Your task to perform on an android device: toggle notification dots Image 0: 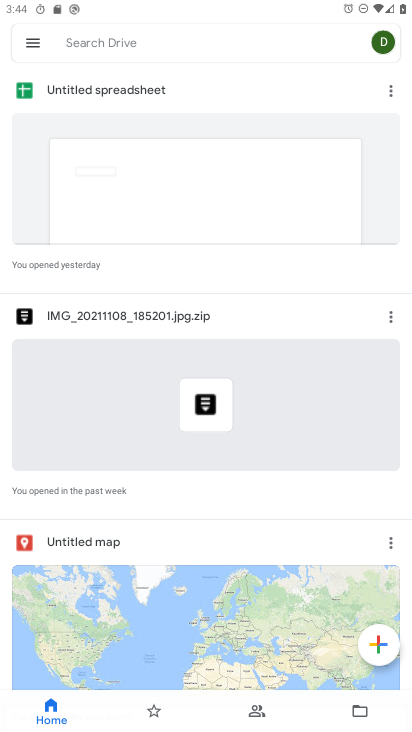
Step 0: press home button
Your task to perform on an android device: toggle notification dots Image 1: 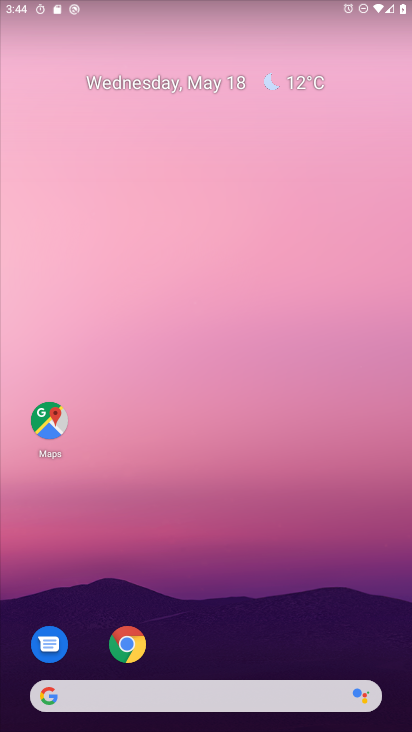
Step 1: drag from (390, 687) to (323, 144)
Your task to perform on an android device: toggle notification dots Image 2: 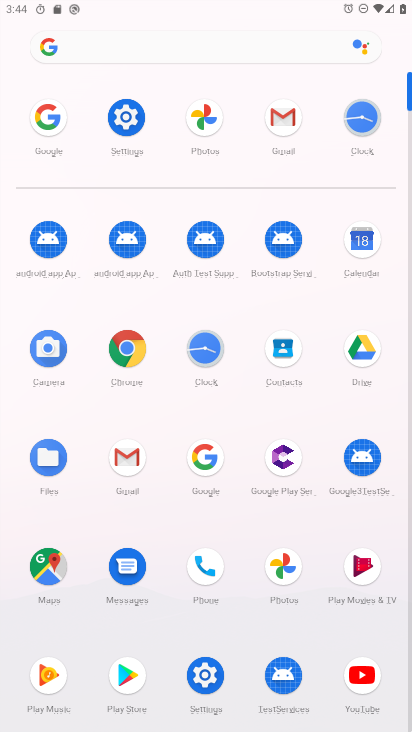
Step 2: click (113, 120)
Your task to perform on an android device: toggle notification dots Image 3: 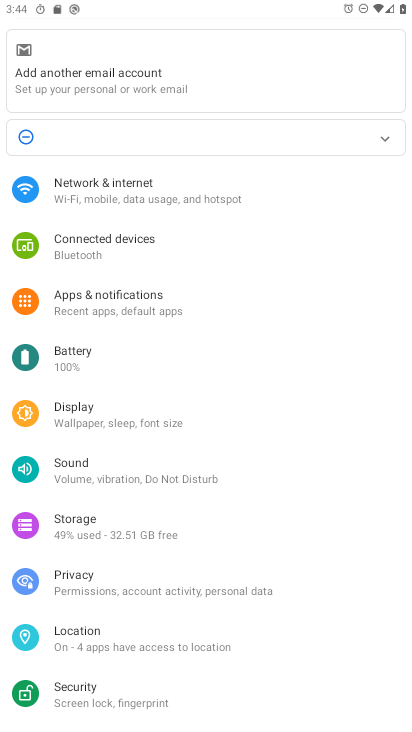
Step 3: click (104, 293)
Your task to perform on an android device: toggle notification dots Image 4: 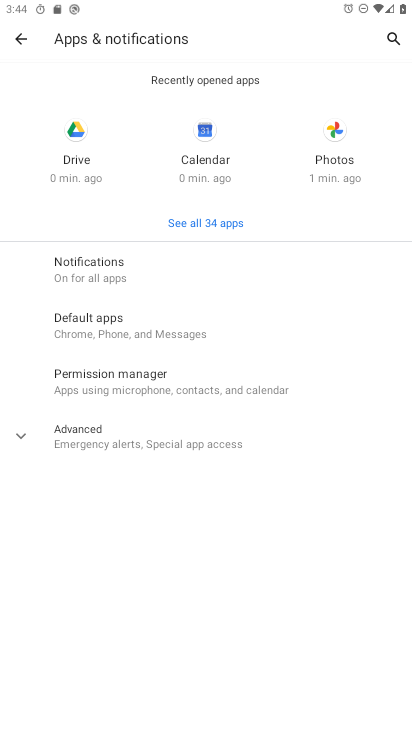
Step 4: click (85, 267)
Your task to perform on an android device: toggle notification dots Image 5: 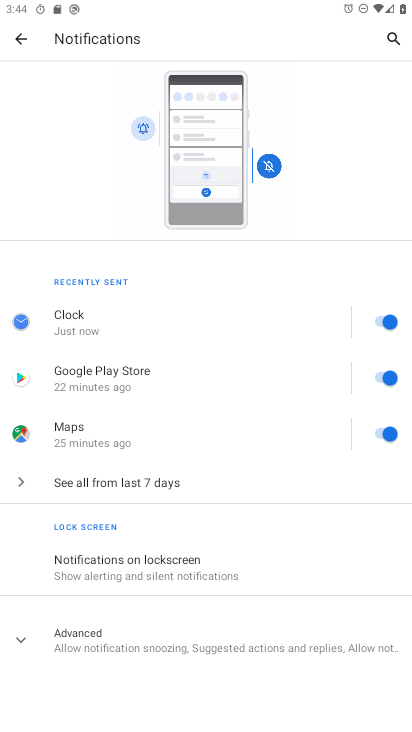
Step 5: drag from (271, 595) to (247, 304)
Your task to perform on an android device: toggle notification dots Image 6: 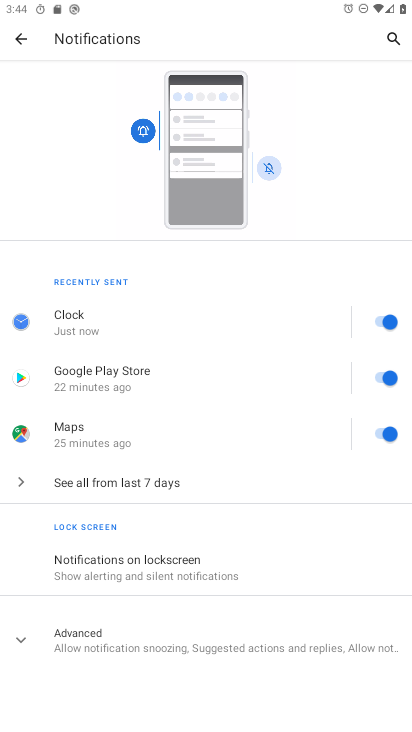
Step 6: drag from (274, 626) to (266, 326)
Your task to perform on an android device: toggle notification dots Image 7: 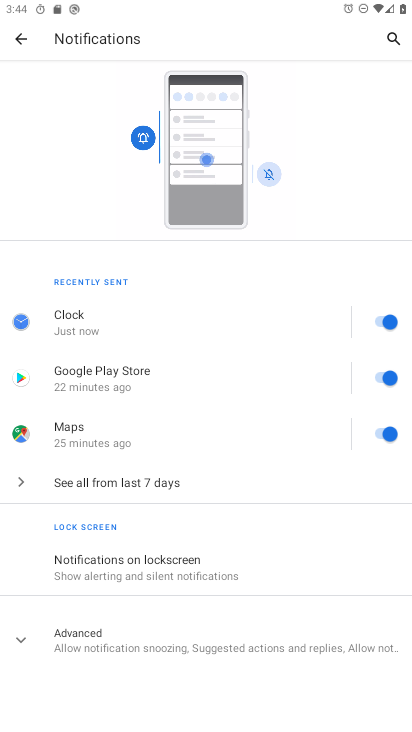
Step 7: click (27, 642)
Your task to perform on an android device: toggle notification dots Image 8: 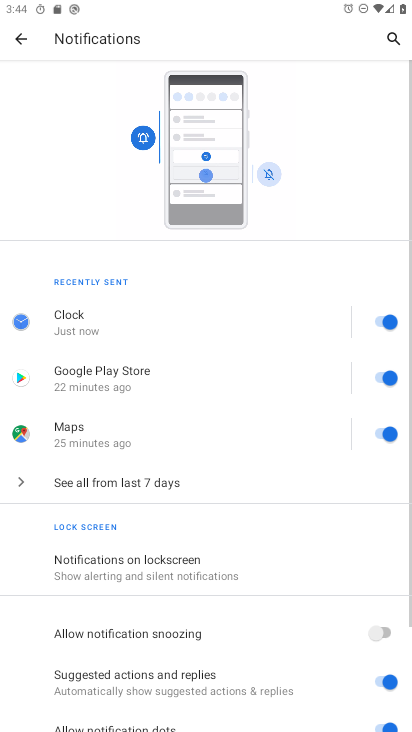
Step 8: drag from (309, 701) to (286, 248)
Your task to perform on an android device: toggle notification dots Image 9: 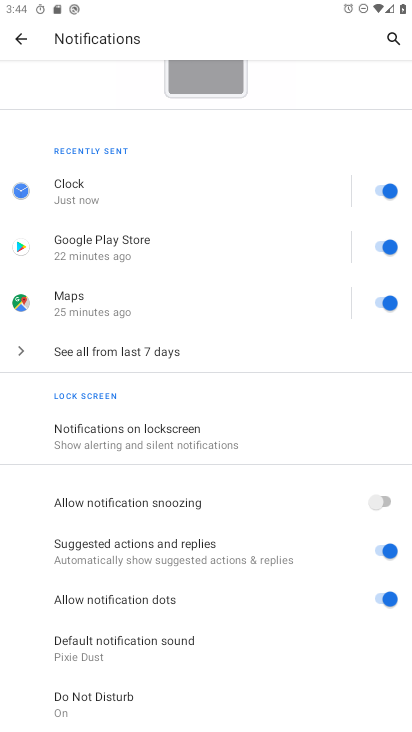
Step 9: click (379, 602)
Your task to perform on an android device: toggle notification dots Image 10: 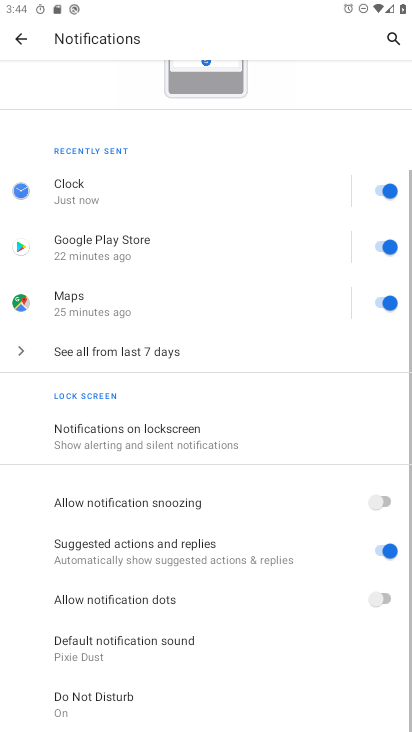
Step 10: task complete